Your task to perform on an android device: Open Amazon Image 0: 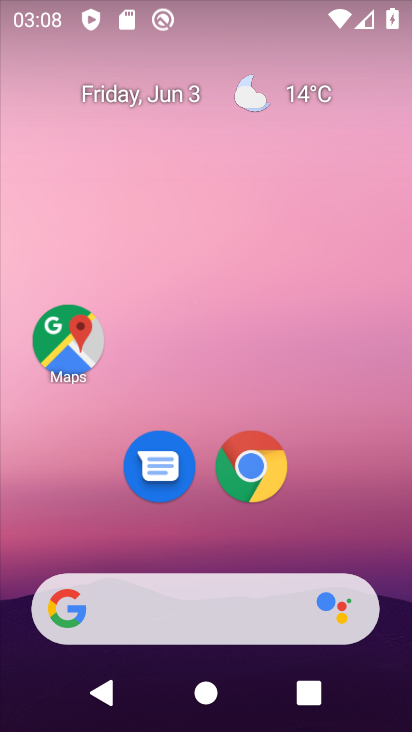
Step 0: press home button
Your task to perform on an android device: Open Amazon Image 1: 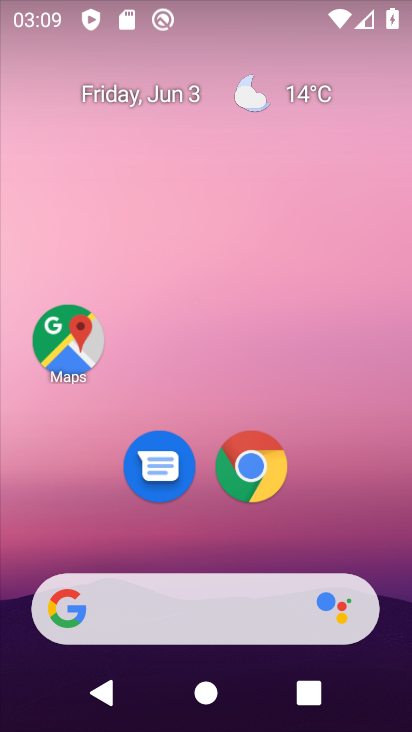
Step 1: click (247, 461)
Your task to perform on an android device: Open Amazon Image 2: 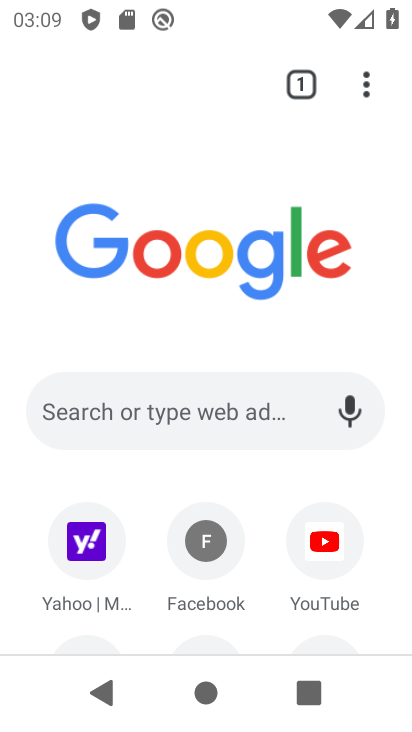
Step 2: drag from (264, 589) to (266, 219)
Your task to perform on an android device: Open Amazon Image 3: 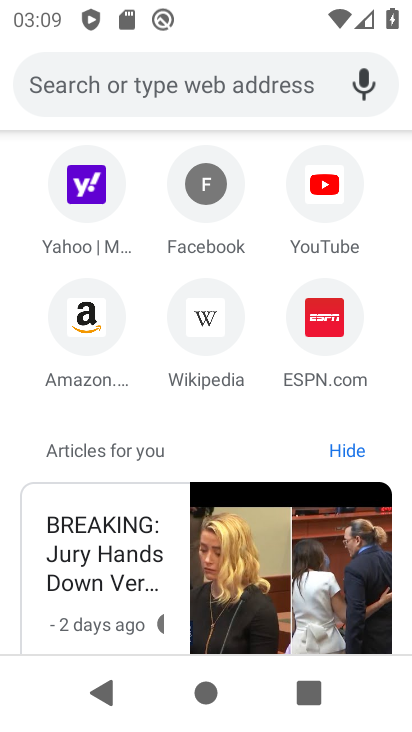
Step 3: click (83, 307)
Your task to perform on an android device: Open Amazon Image 4: 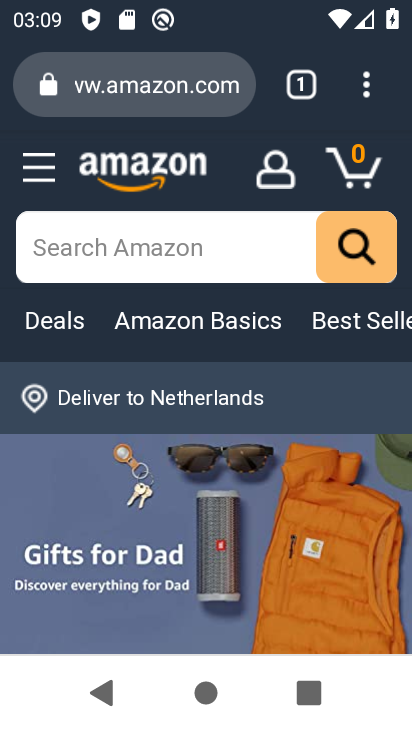
Step 4: task complete